Your task to perform on an android device: Open ESPN.com Image 0: 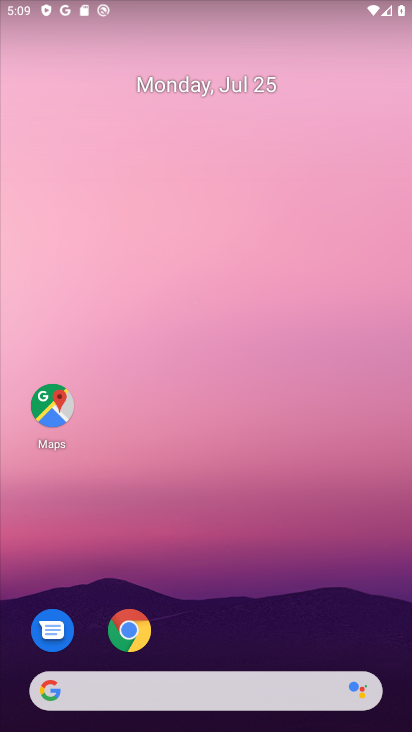
Step 0: press home button
Your task to perform on an android device: Open ESPN.com Image 1: 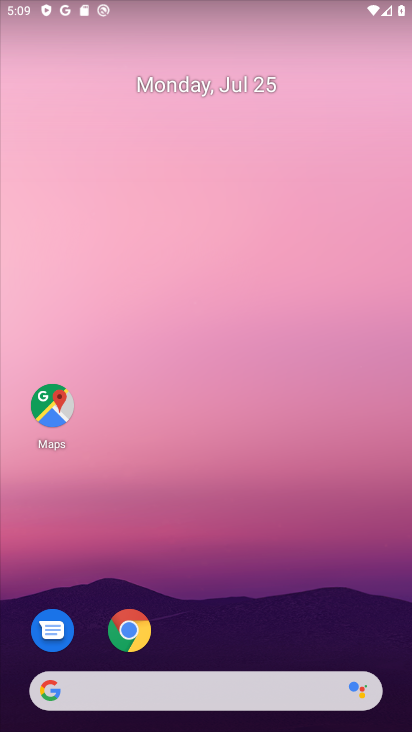
Step 1: click (136, 622)
Your task to perform on an android device: Open ESPN.com Image 2: 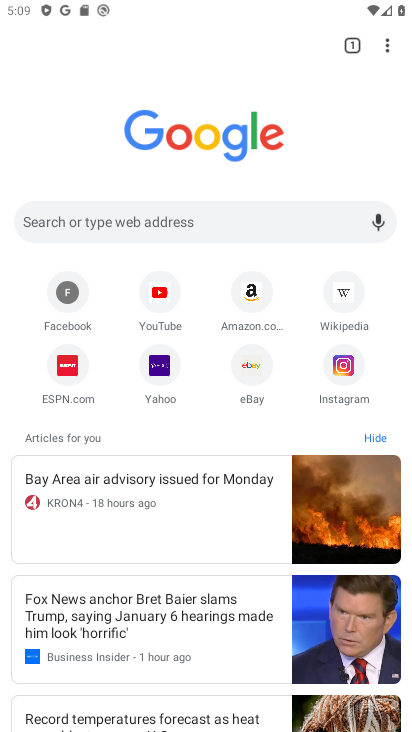
Step 2: click (63, 361)
Your task to perform on an android device: Open ESPN.com Image 3: 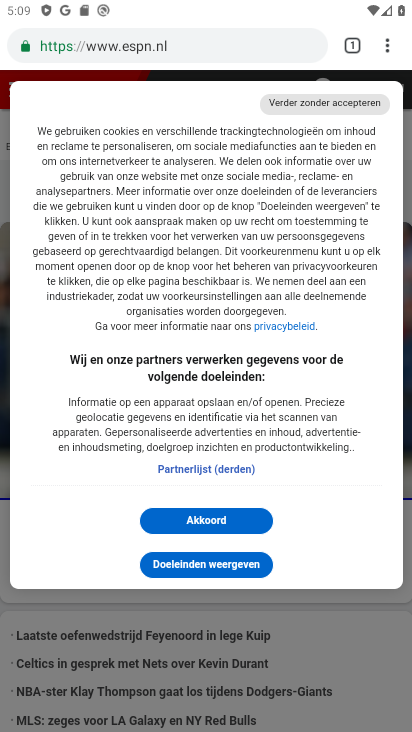
Step 3: click (201, 517)
Your task to perform on an android device: Open ESPN.com Image 4: 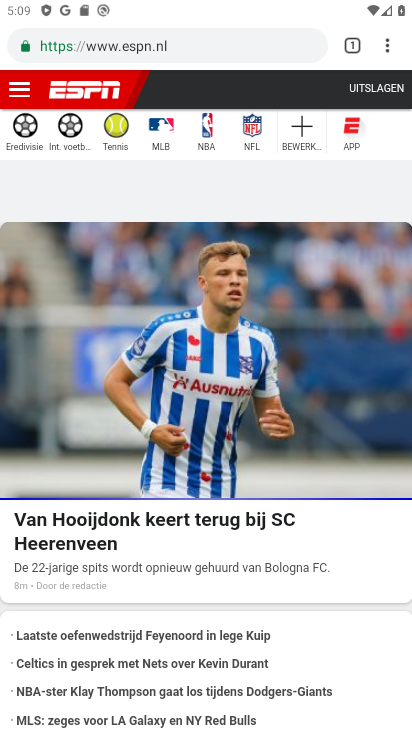
Step 4: task complete